Your task to perform on an android device: turn off notifications in google photos Image 0: 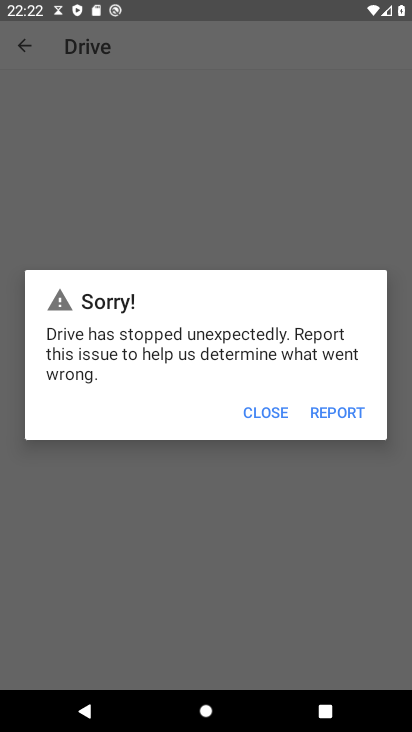
Step 0: press home button
Your task to perform on an android device: turn off notifications in google photos Image 1: 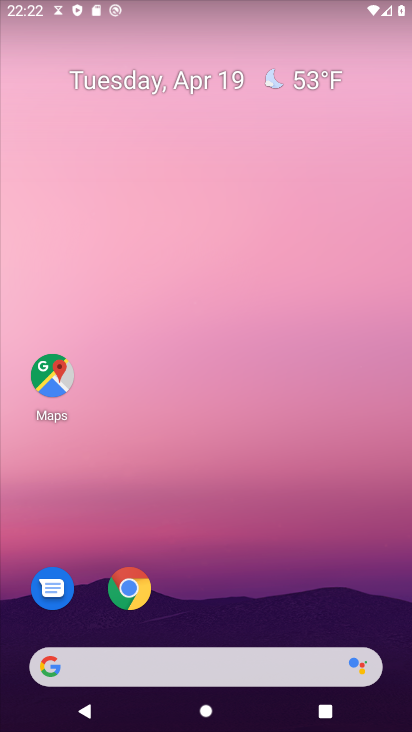
Step 1: drag from (208, 368) to (212, 48)
Your task to perform on an android device: turn off notifications in google photos Image 2: 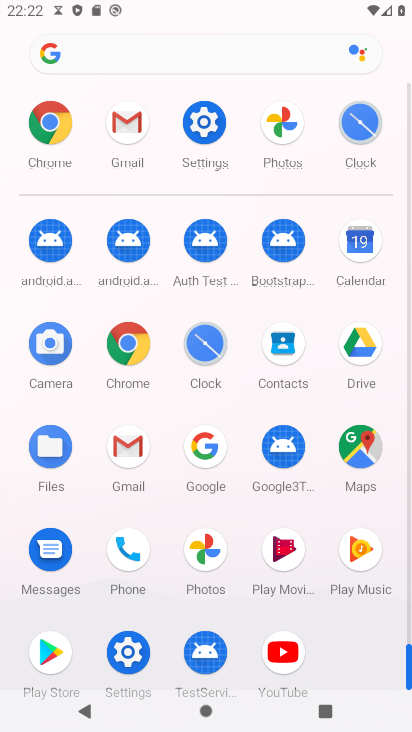
Step 2: click (283, 124)
Your task to perform on an android device: turn off notifications in google photos Image 3: 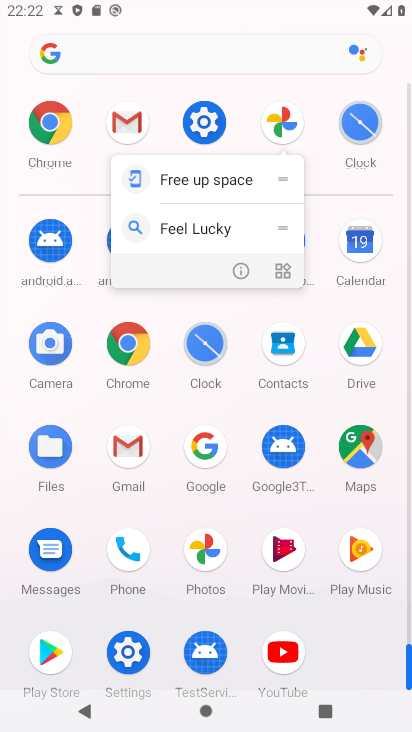
Step 3: click (283, 124)
Your task to perform on an android device: turn off notifications in google photos Image 4: 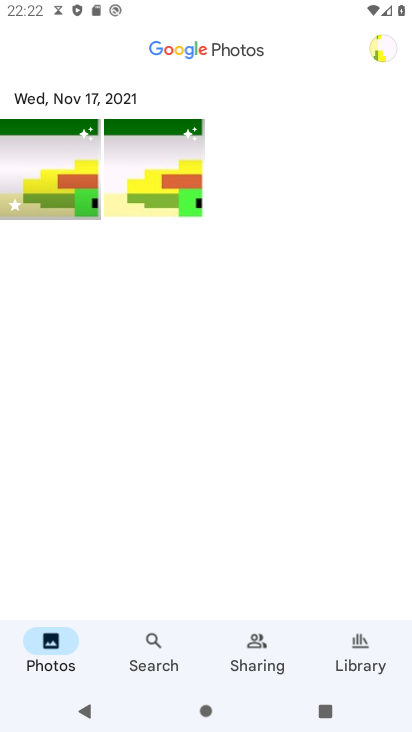
Step 4: click (387, 51)
Your task to perform on an android device: turn off notifications in google photos Image 5: 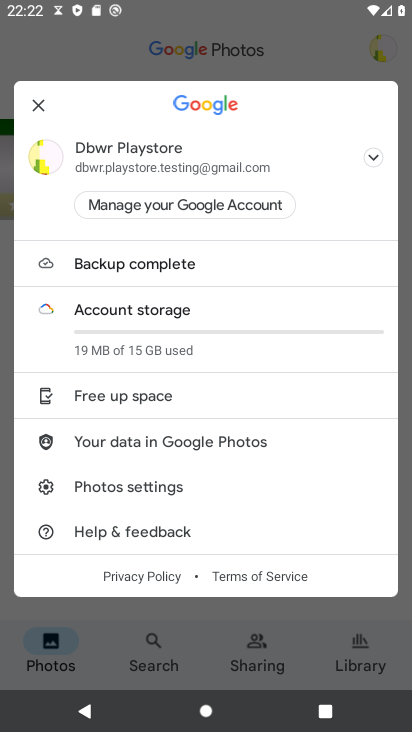
Step 5: click (128, 488)
Your task to perform on an android device: turn off notifications in google photos Image 6: 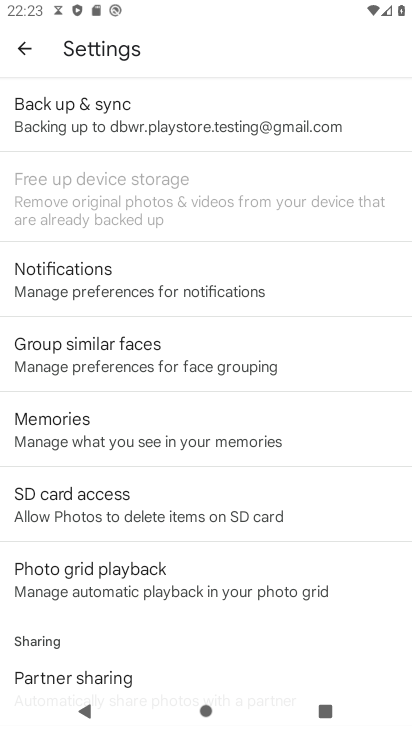
Step 6: click (155, 286)
Your task to perform on an android device: turn off notifications in google photos Image 7: 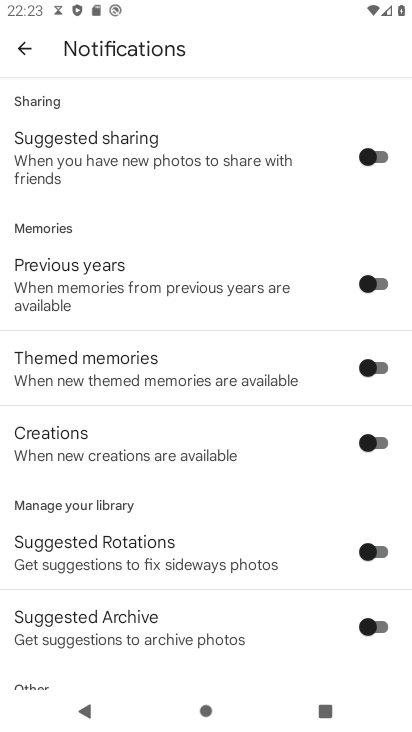
Step 7: drag from (124, 541) to (142, 404)
Your task to perform on an android device: turn off notifications in google photos Image 8: 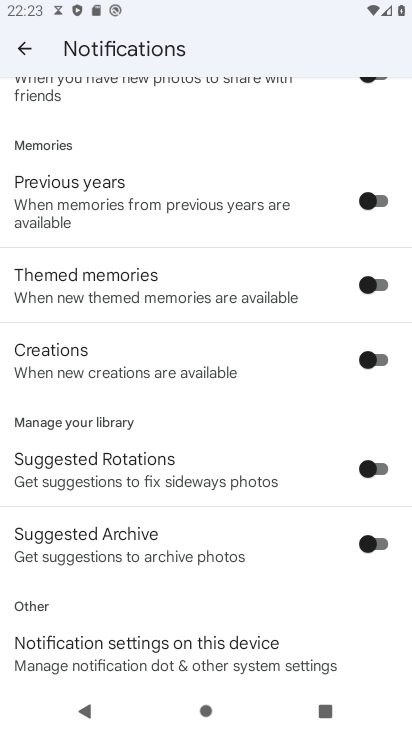
Step 8: drag from (139, 606) to (157, 411)
Your task to perform on an android device: turn off notifications in google photos Image 9: 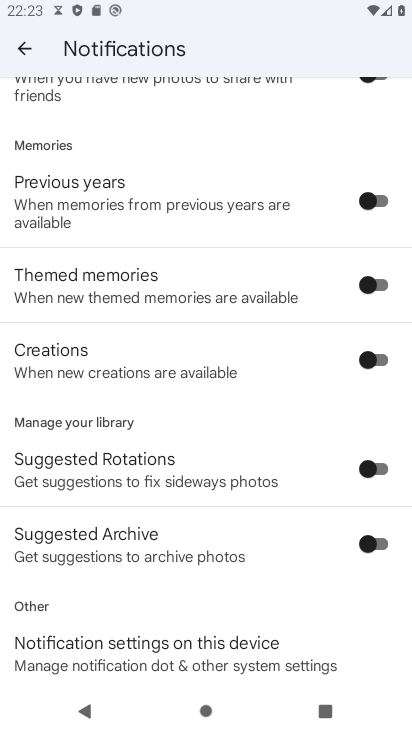
Step 9: click (178, 649)
Your task to perform on an android device: turn off notifications in google photos Image 10: 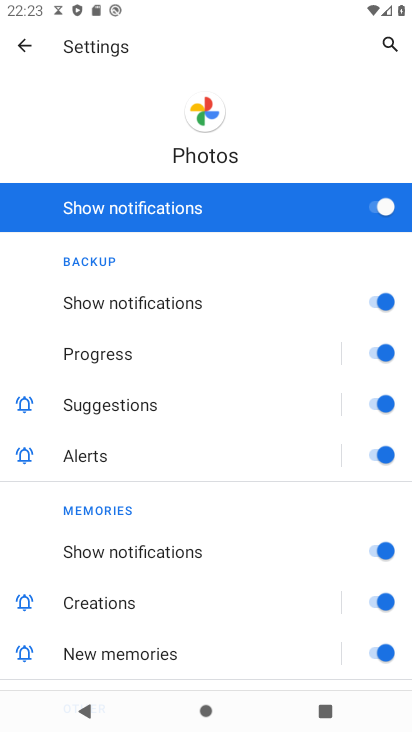
Step 10: click (390, 213)
Your task to perform on an android device: turn off notifications in google photos Image 11: 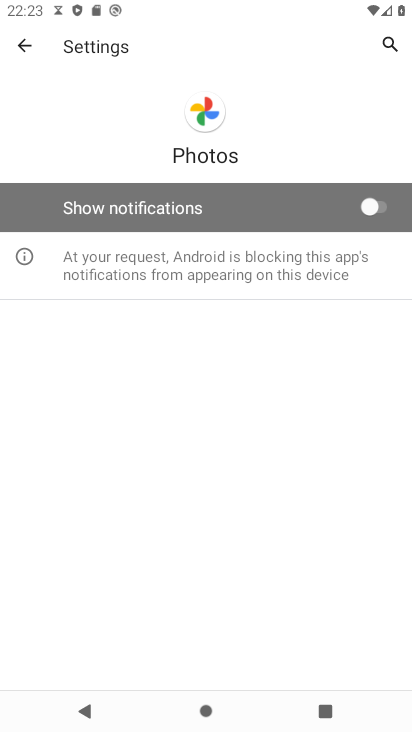
Step 11: task complete